Your task to perform on an android device: turn off improve location accuracy Image 0: 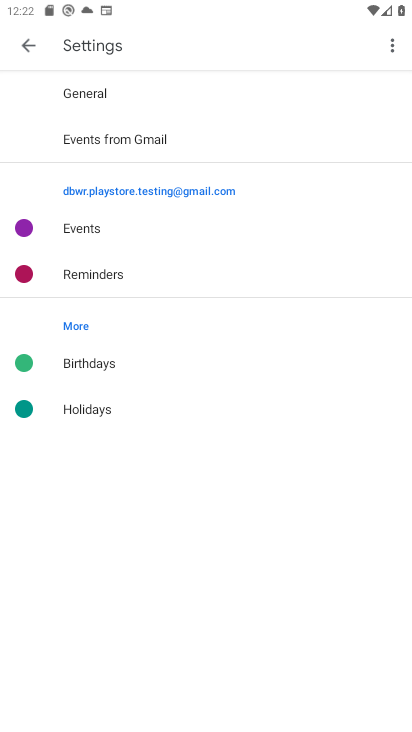
Step 0: press home button
Your task to perform on an android device: turn off improve location accuracy Image 1: 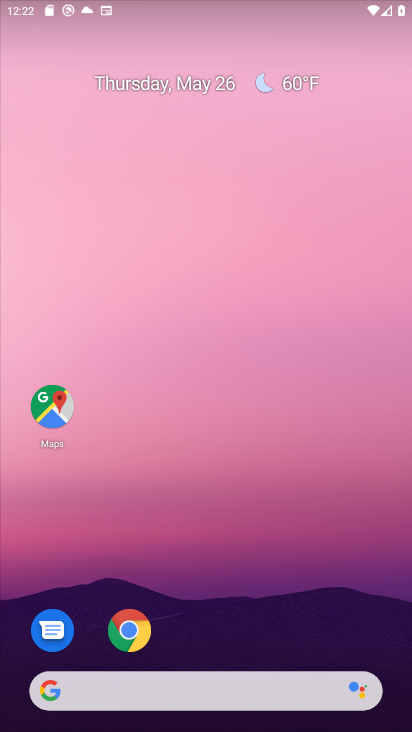
Step 1: drag from (221, 624) to (229, 136)
Your task to perform on an android device: turn off improve location accuracy Image 2: 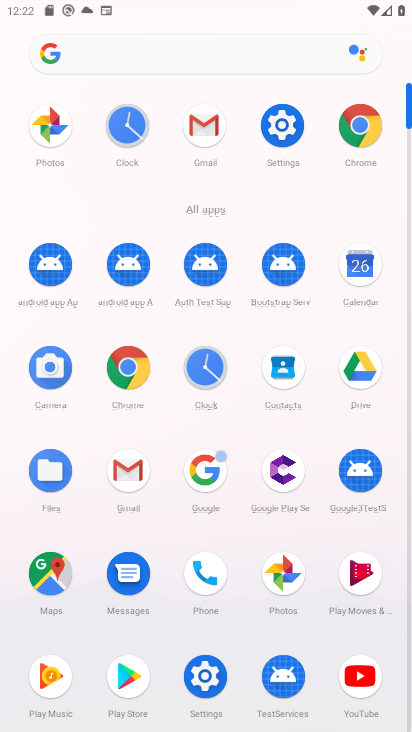
Step 2: click (277, 137)
Your task to perform on an android device: turn off improve location accuracy Image 3: 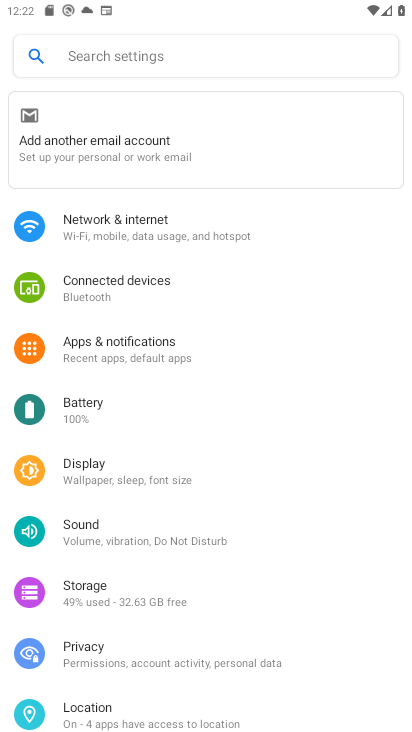
Step 3: drag from (133, 688) to (96, 258)
Your task to perform on an android device: turn off improve location accuracy Image 4: 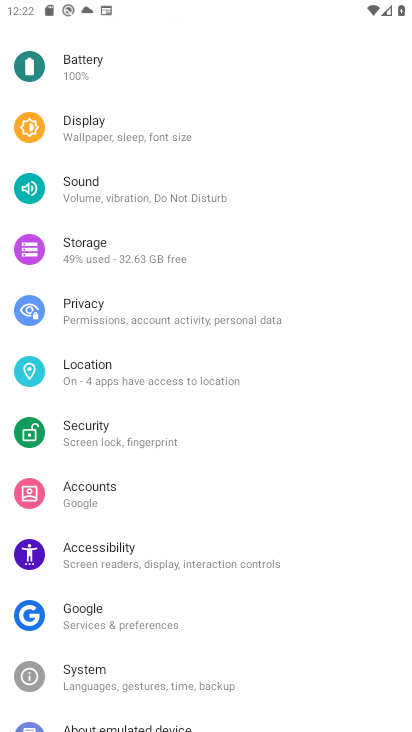
Step 4: click (114, 362)
Your task to perform on an android device: turn off improve location accuracy Image 5: 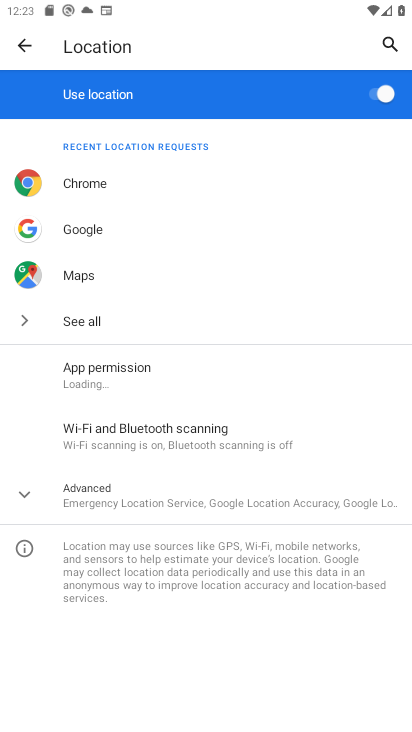
Step 5: click (159, 496)
Your task to perform on an android device: turn off improve location accuracy Image 6: 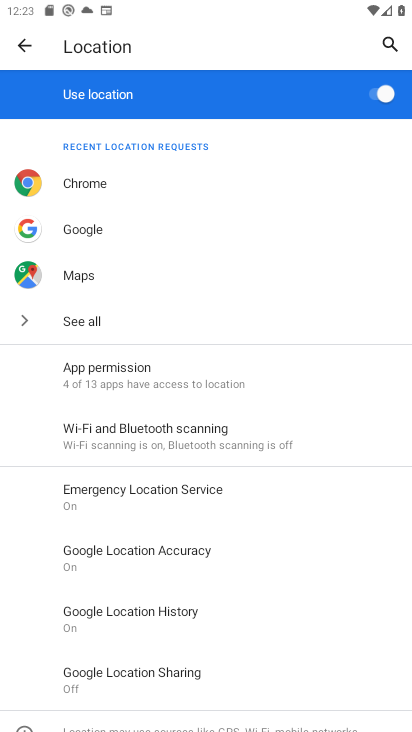
Step 6: click (195, 555)
Your task to perform on an android device: turn off improve location accuracy Image 7: 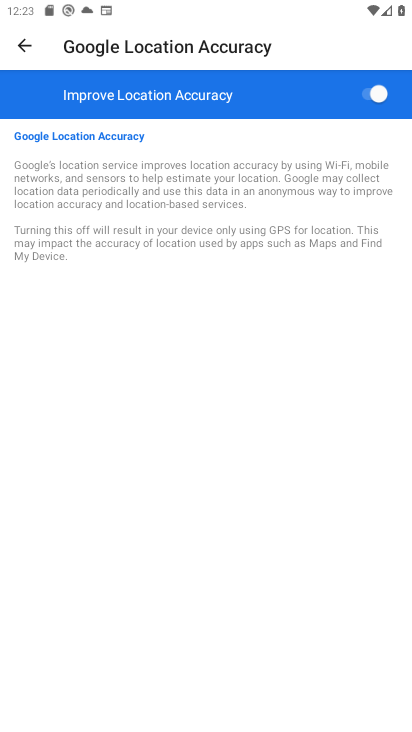
Step 7: click (378, 107)
Your task to perform on an android device: turn off improve location accuracy Image 8: 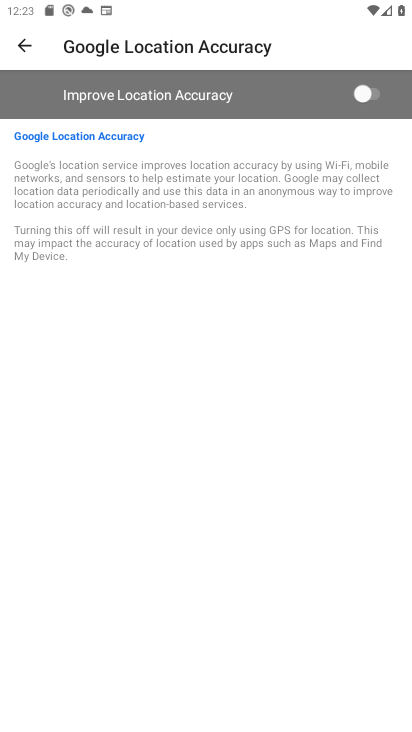
Step 8: task complete